Your task to perform on an android device: delete browsing data in the chrome app Image 0: 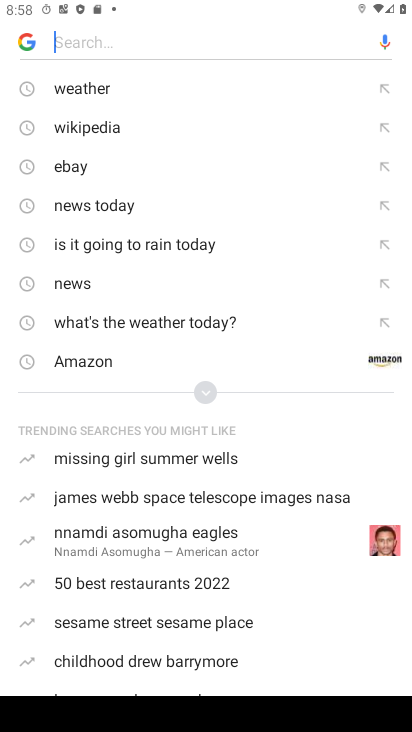
Step 0: press back button
Your task to perform on an android device: delete browsing data in the chrome app Image 1: 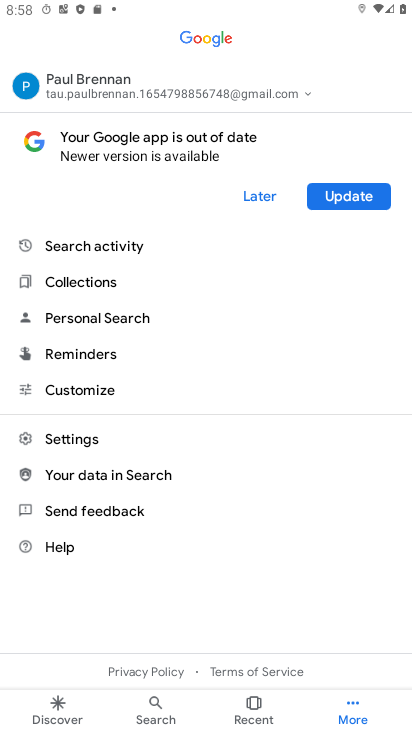
Step 1: press home button
Your task to perform on an android device: delete browsing data in the chrome app Image 2: 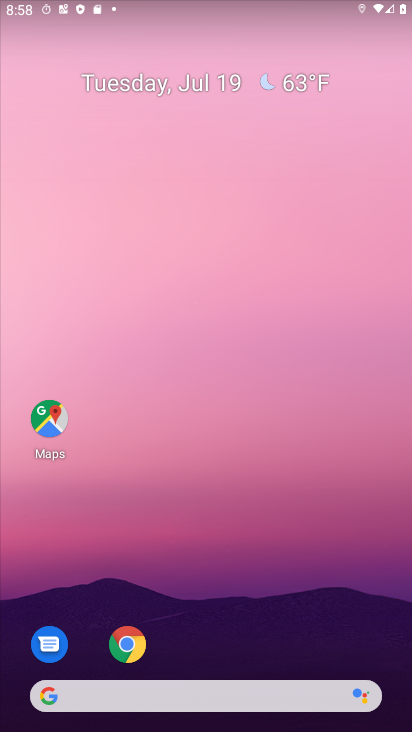
Step 2: drag from (260, 644) to (148, 249)
Your task to perform on an android device: delete browsing data in the chrome app Image 3: 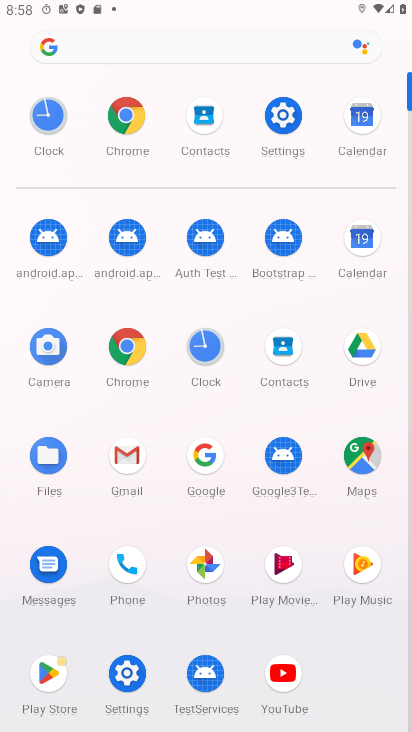
Step 3: click (123, 130)
Your task to perform on an android device: delete browsing data in the chrome app Image 4: 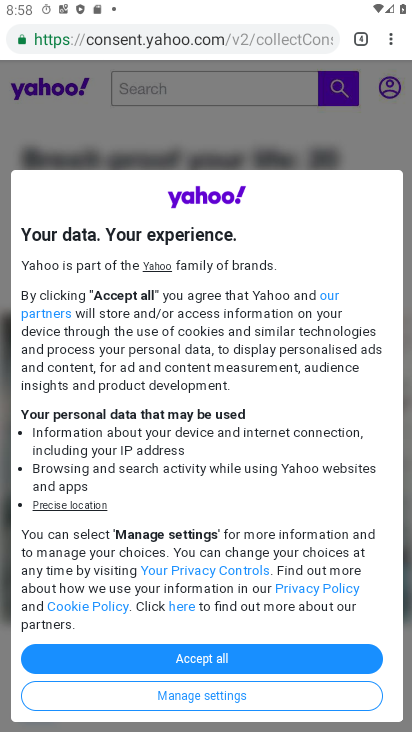
Step 4: click (391, 39)
Your task to perform on an android device: delete browsing data in the chrome app Image 5: 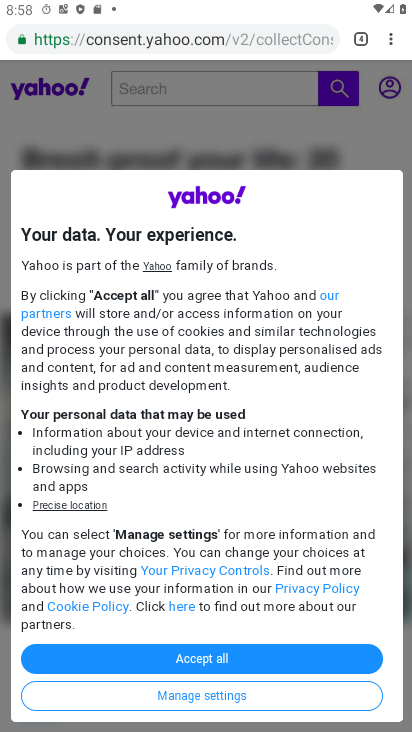
Step 5: drag from (386, 38) to (249, 215)
Your task to perform on an android device: delete browsing data in the chrome app Image 6: 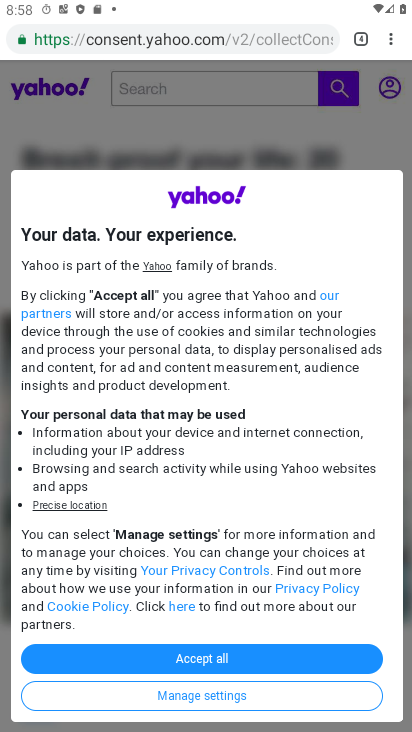
Step 6: click (249, 215)
Your task to perform on an android device: delete browsing data in the chrome app Image 7: 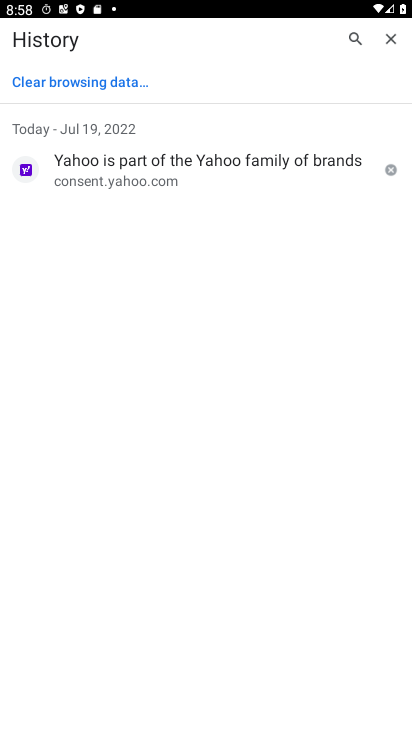
Step 7: click (387, 168)
Your task to perform on an android device: delete browsing data in the chrome app Image 8: 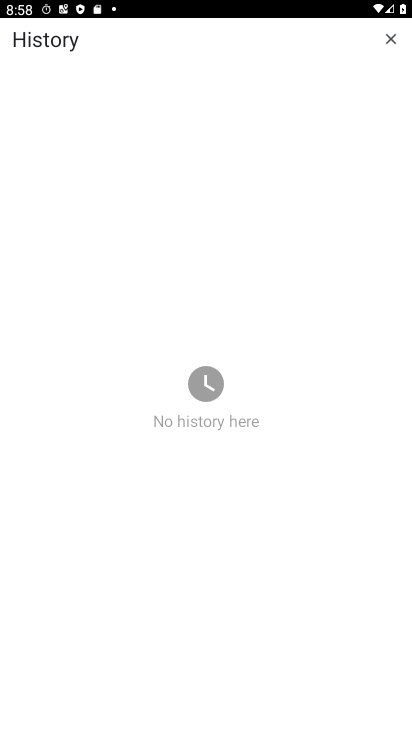
Step 8: task complete